Your task to perform on an android device: see creations saved in the google photos Image 0: 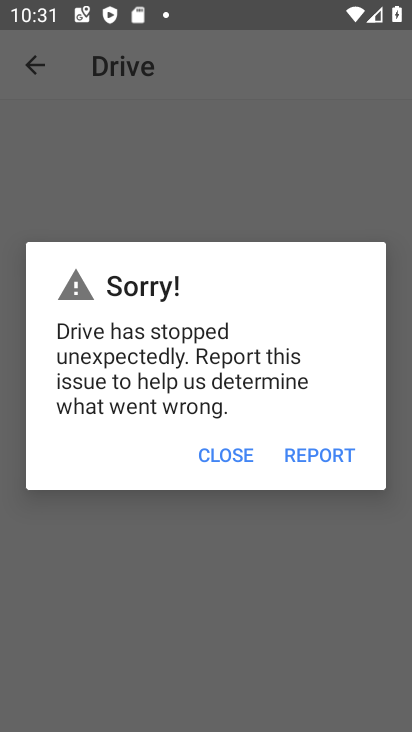
Step 0: press home button
Your task to perform on an android device: see creations saved in the google photos Image 1: 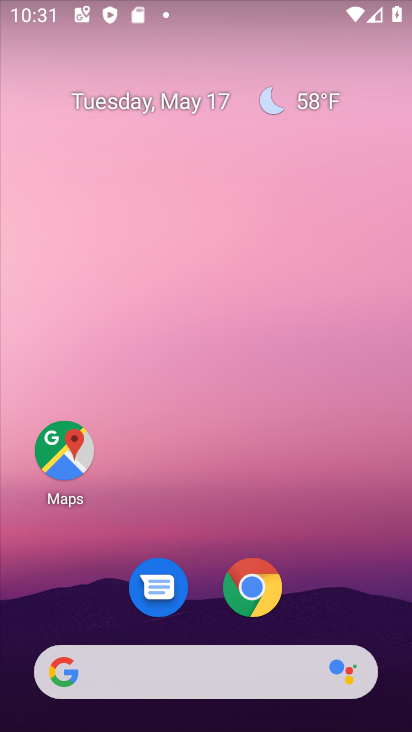
Step 1: drag from (353, 606) to (245, 197)
Your task to perform on an android device: see creations saved in the google photos Image 2: 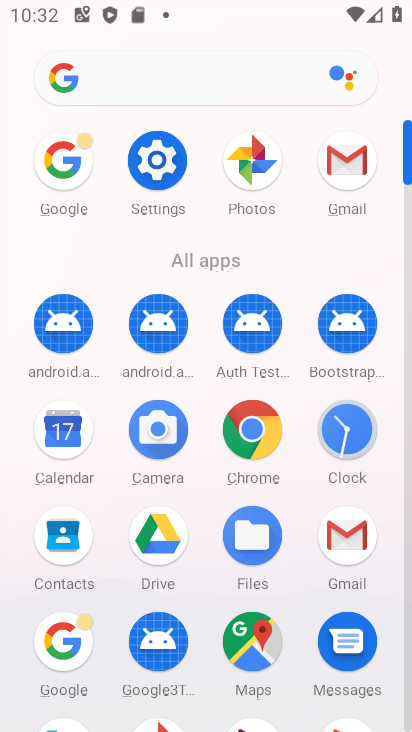
Step 2: click (252, 157)
Your task to perform on an android device: see creations saved in the google photos Image 3: 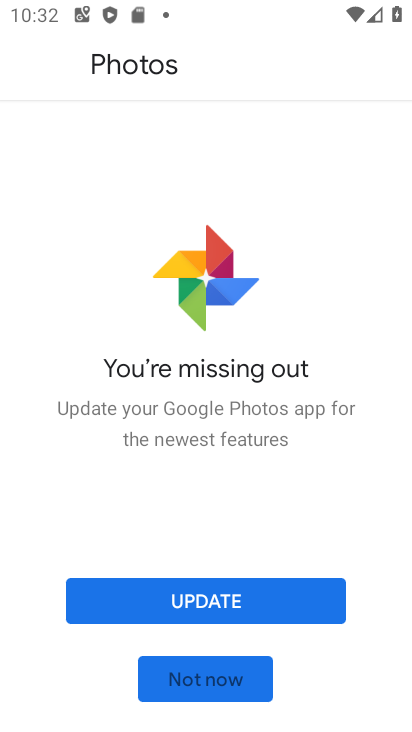
Step 3: click (211, 593)
Your task to perform on an android device: see creations saved in the google photos Image 4: 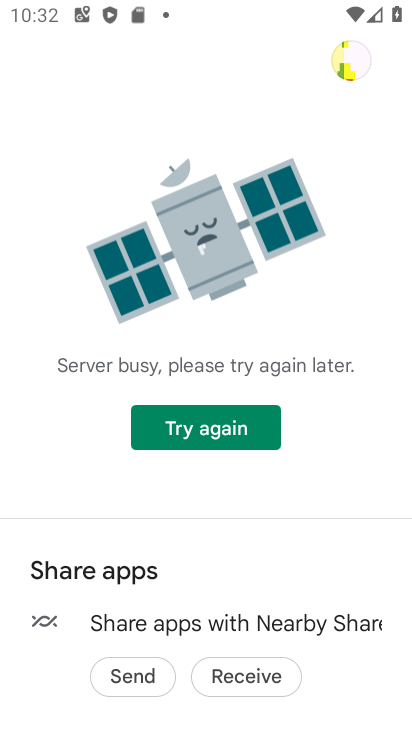
Step 4: click (213, 425)
Your task to perform on an android device: see creations saved in the google photos Image 5: 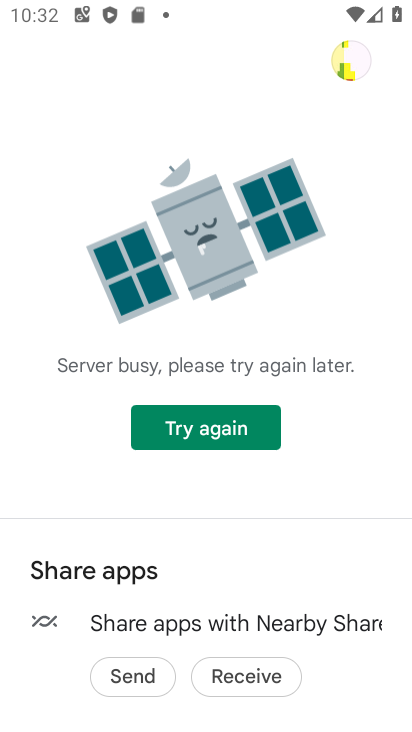
Step 5: click (213, 425)
Your task to perform on an android device: see creations saved in the google photos Image 6: 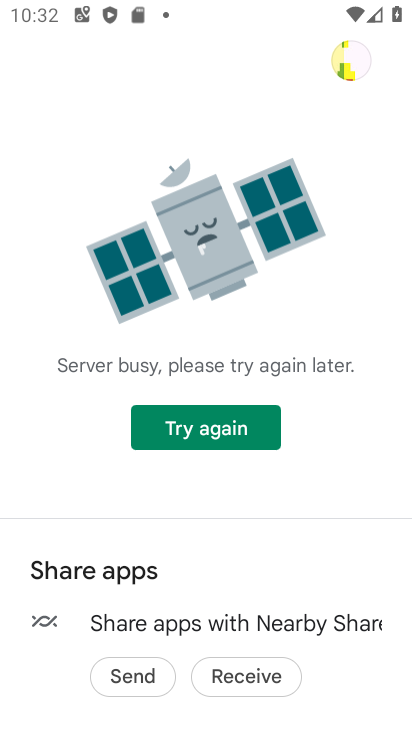
Step 6: click (202, 432)
Your task to perform on an android device: see creations saved in the google photos Image 7: 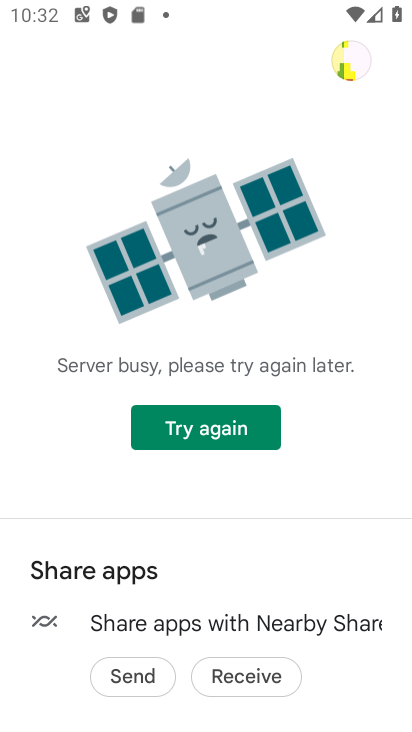
Step 7: task complete